Your task to perform on an android device: open app "NewsBreak: Local News & Alerts" (install if not already installed) Image 0: 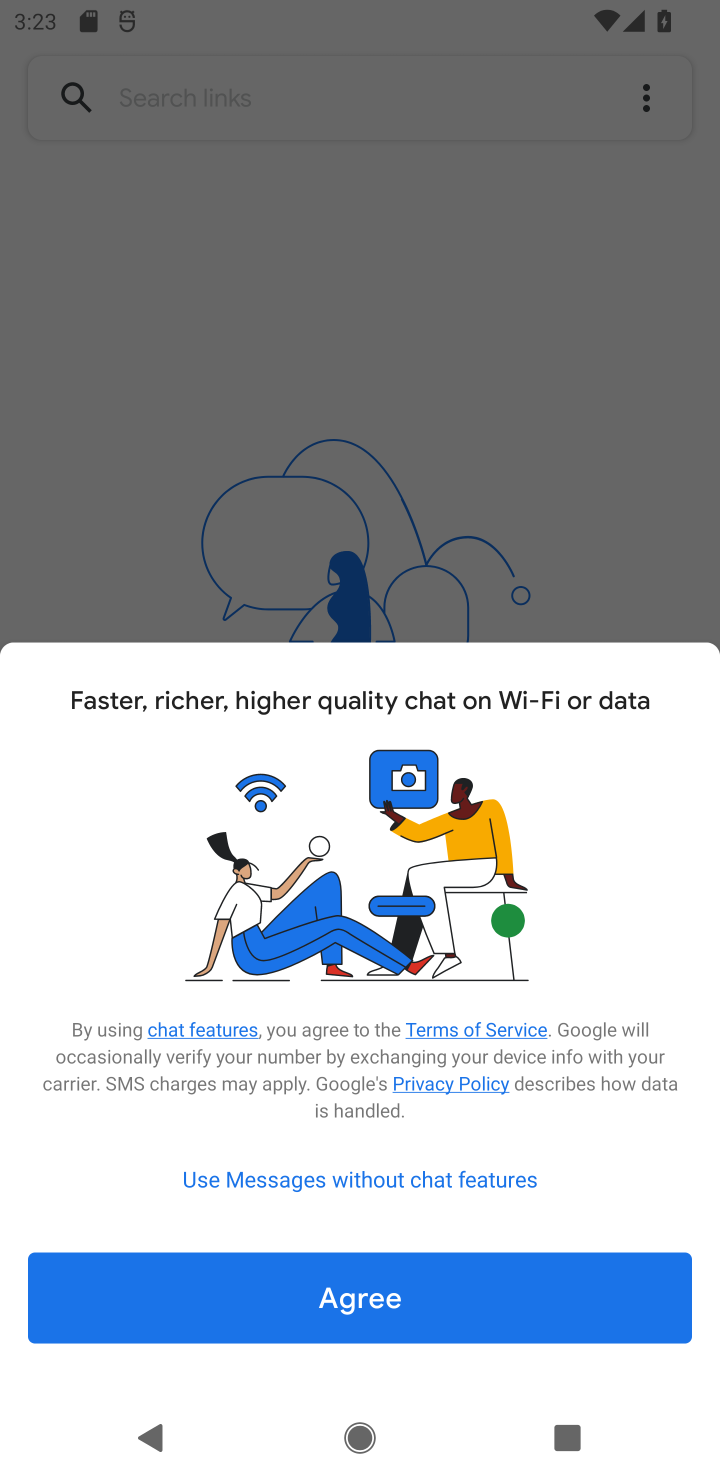
Step 0: press home button
Your task to perform on an android device: open app "NewsBreak: Local News & Alerts" (install if not already installed) Image 1: 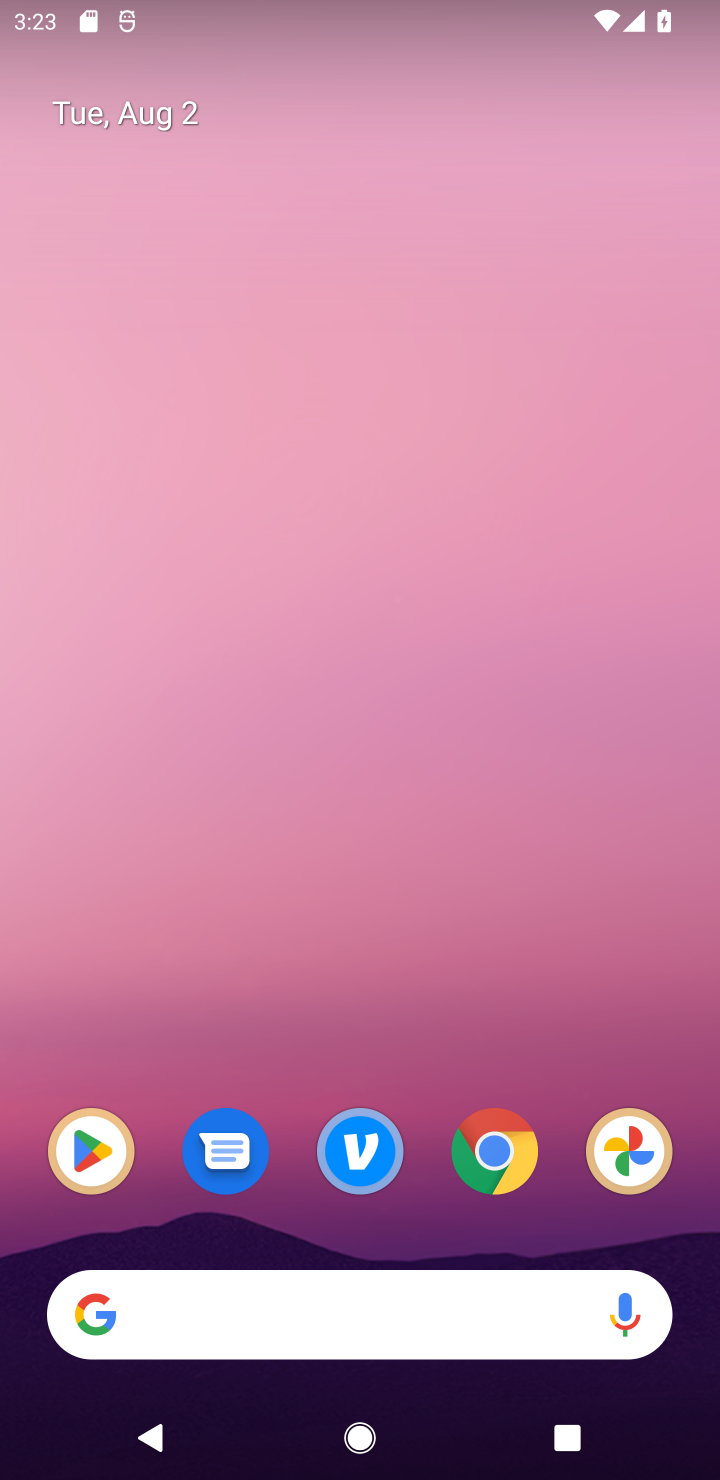
Step 1: drag from (300, 1030) to (339, 280)
Your task to perform on an android device: open app "NewsBreak: Local News & Alerts" (install if not already installed) Image 2: 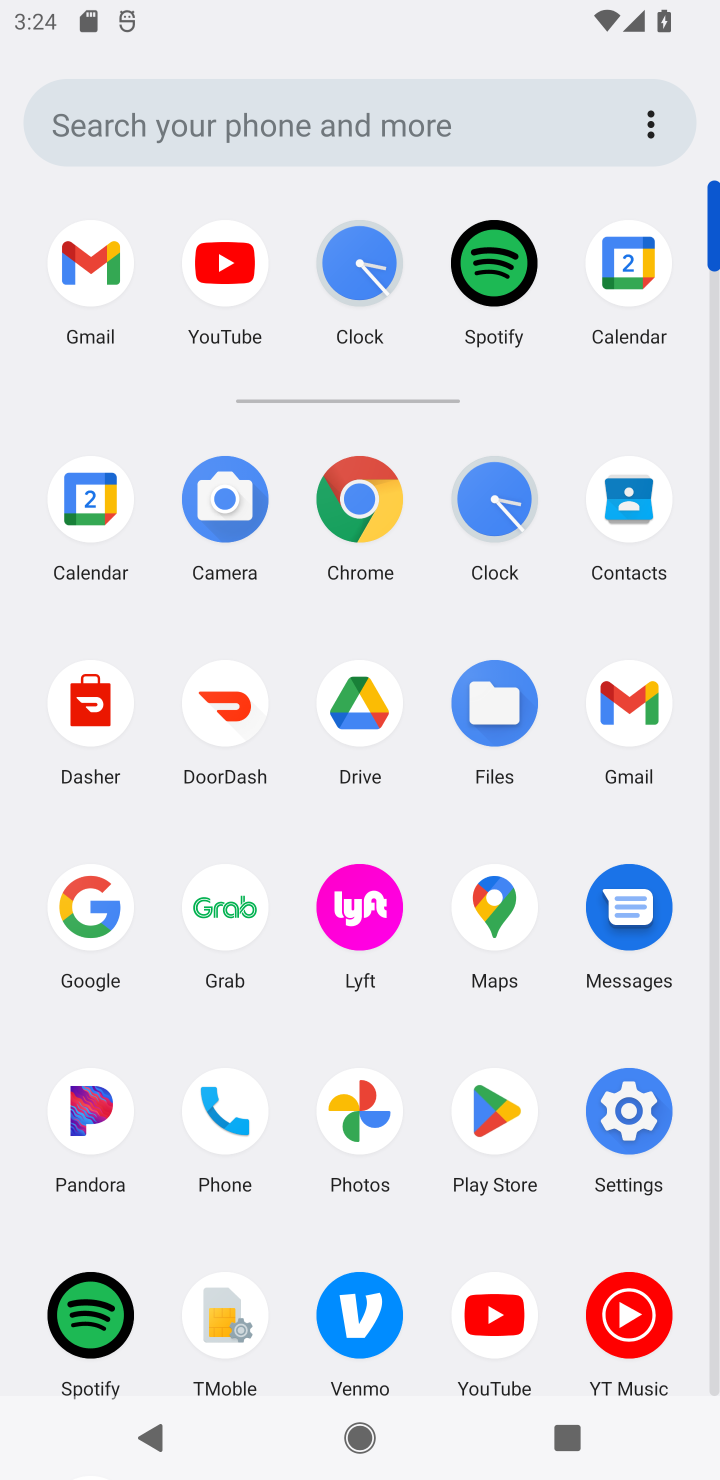
Step 2: click (453, 1135)
Your task to perform on an android device: open app "NewsBreak: Local News & Alerts" (install if not already installed) Image 3: 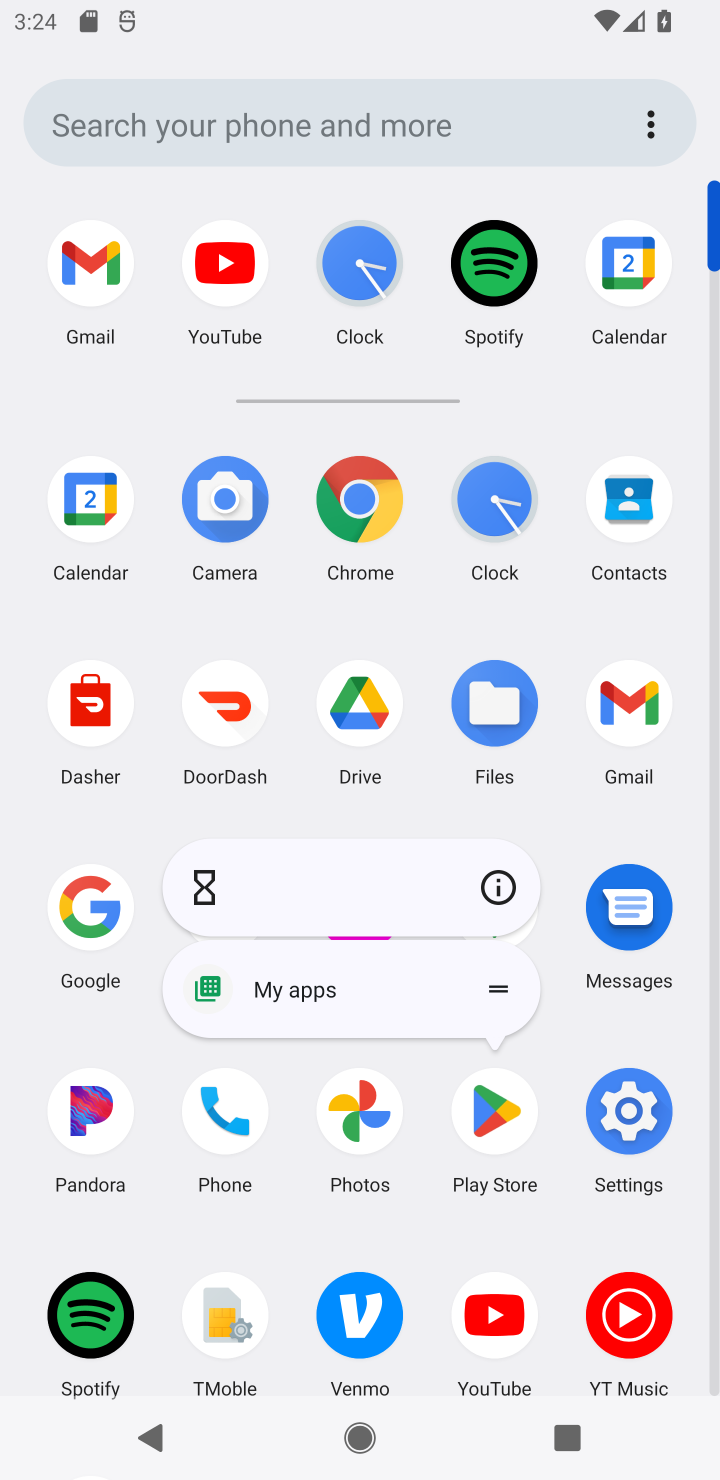
Step 3: click (508, 1134)
Your task to perform on an android device: open app "NewsBreak: Local News & Alerts" (install if not already installed) Image 4: 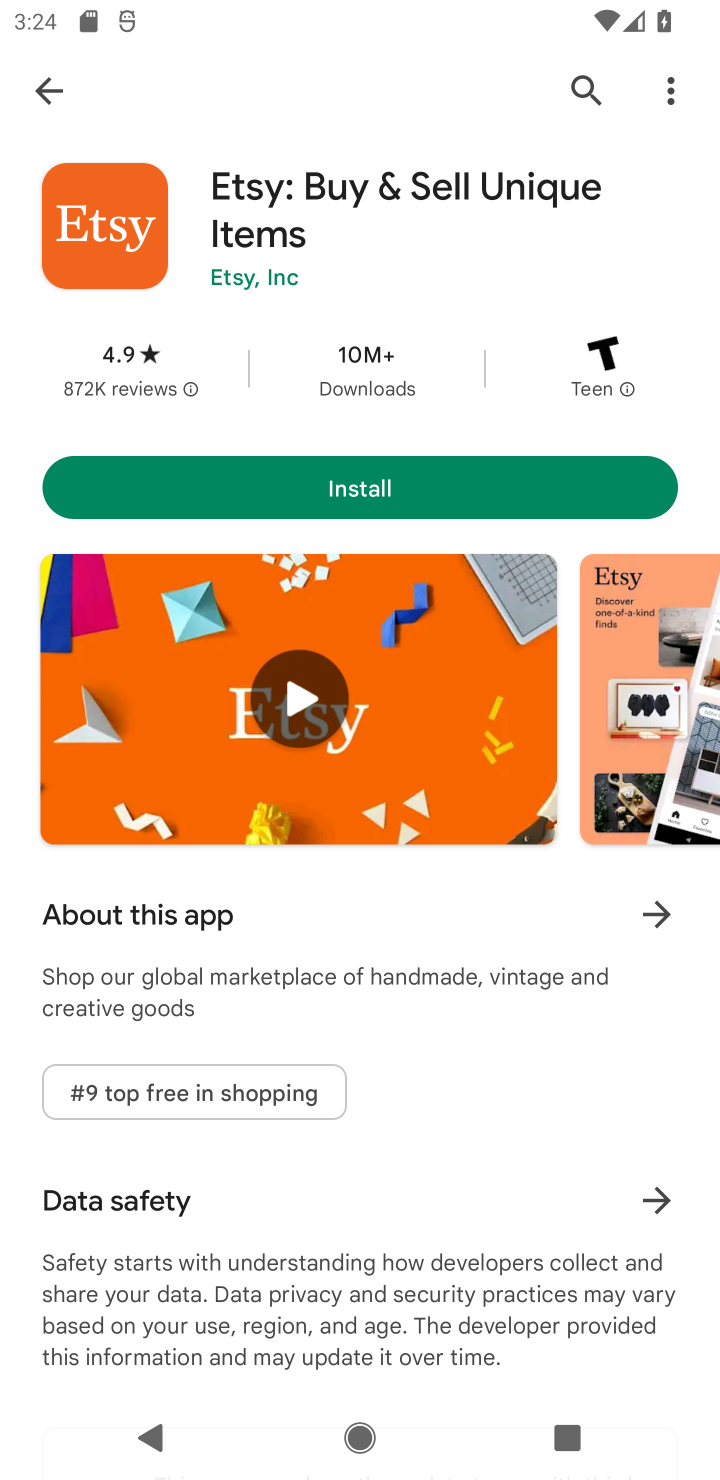
Step 4: click (51, 80)
Your task to perform on an android device: open app "NewsBreak: Local News & Alerts" (install if not already installed) Image 5: 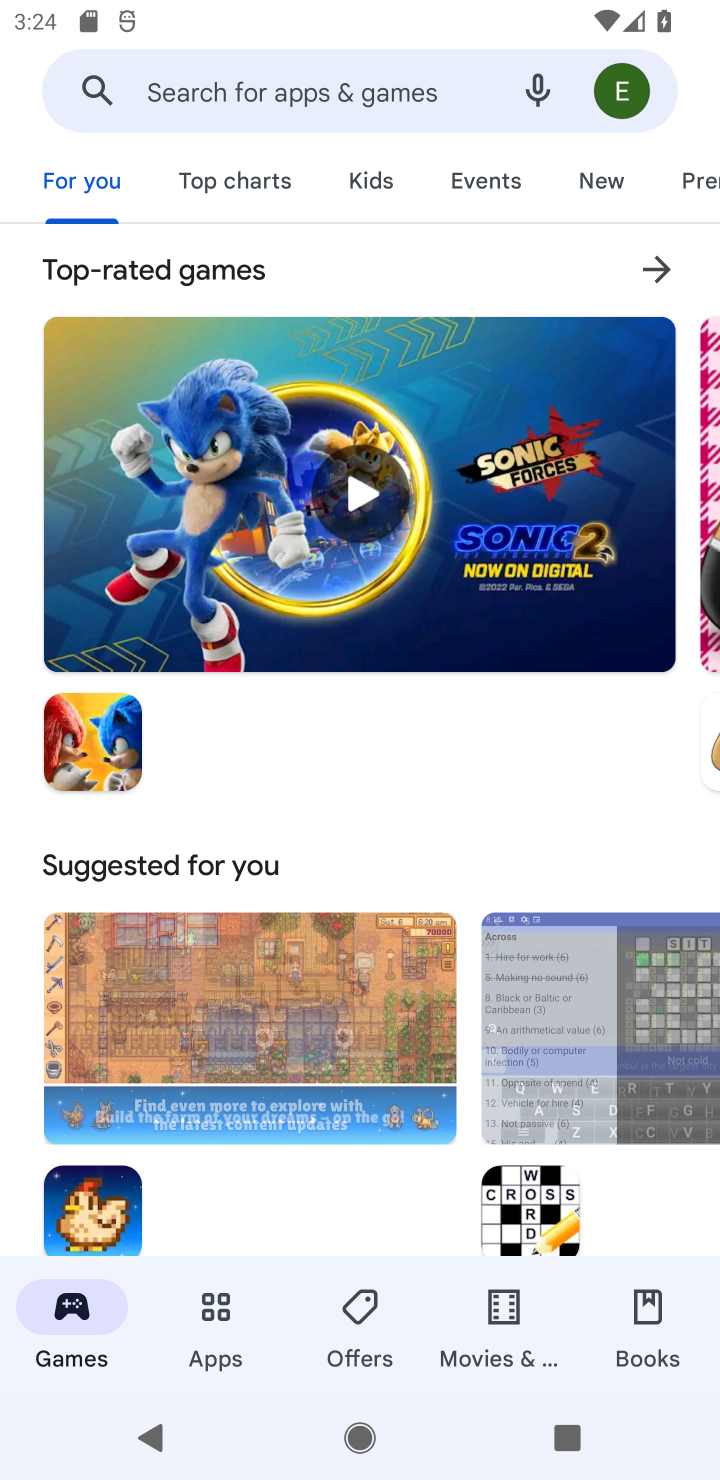
Step 5: click (367, 93)
Your task to perform on an android device: open app "NewsBreak: Local News & Alerts" (install if not already installed) Image 6: 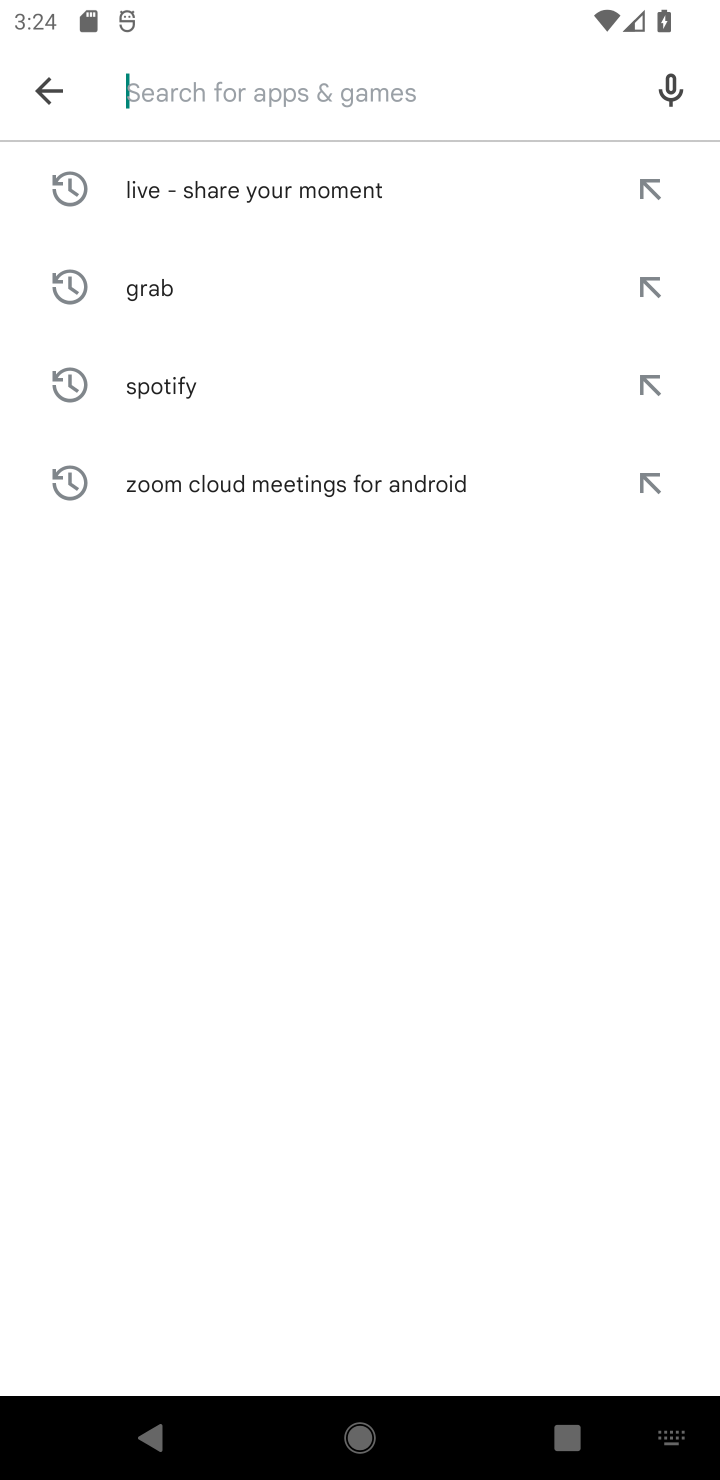
Step 6: type "NewsBreak: Local News & Alerts"
Your task to perform on an android device: open app "NewsBreak: Local News & Alerts" (install if not already installed) Image 7: 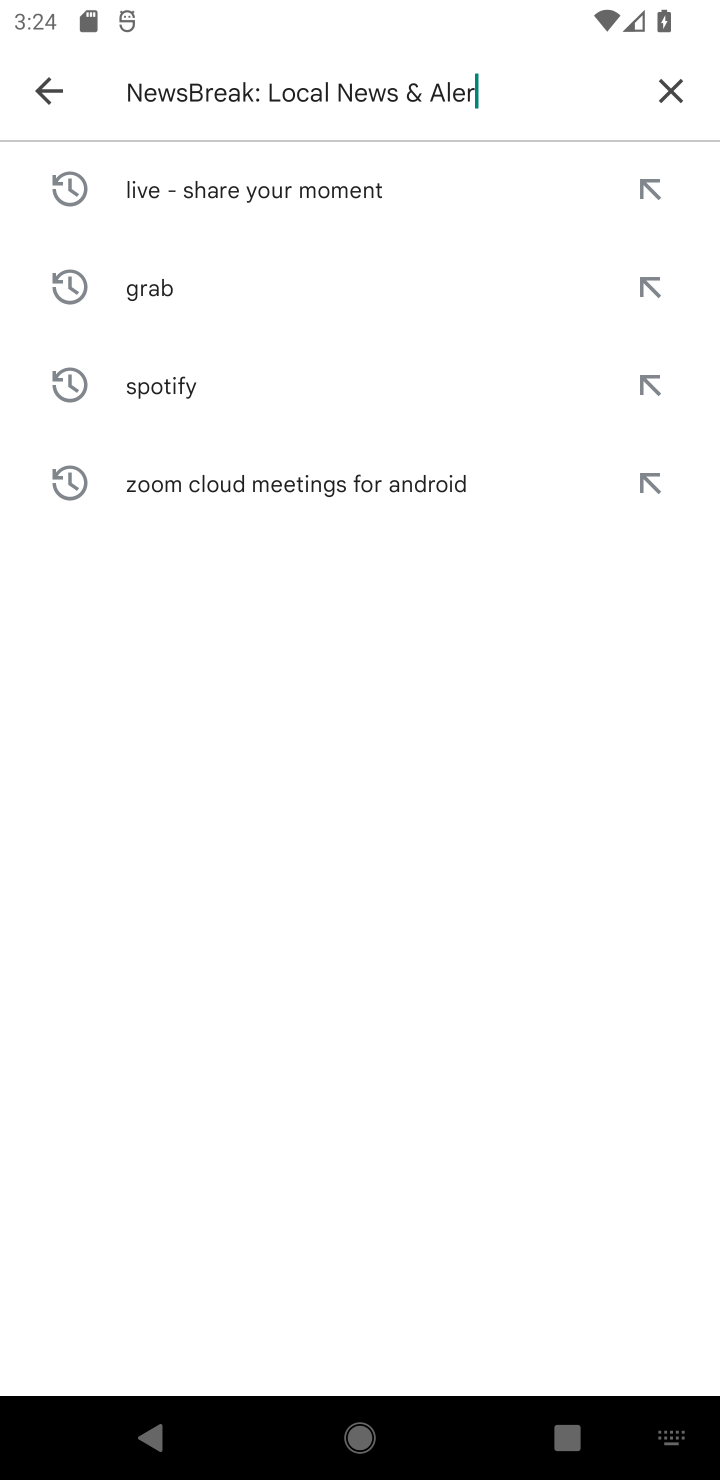
Step 7: type ""
Your task to perform on an android device: open app "NewsBreak: Local News & Alerts" (install if not already installed) Image 8: 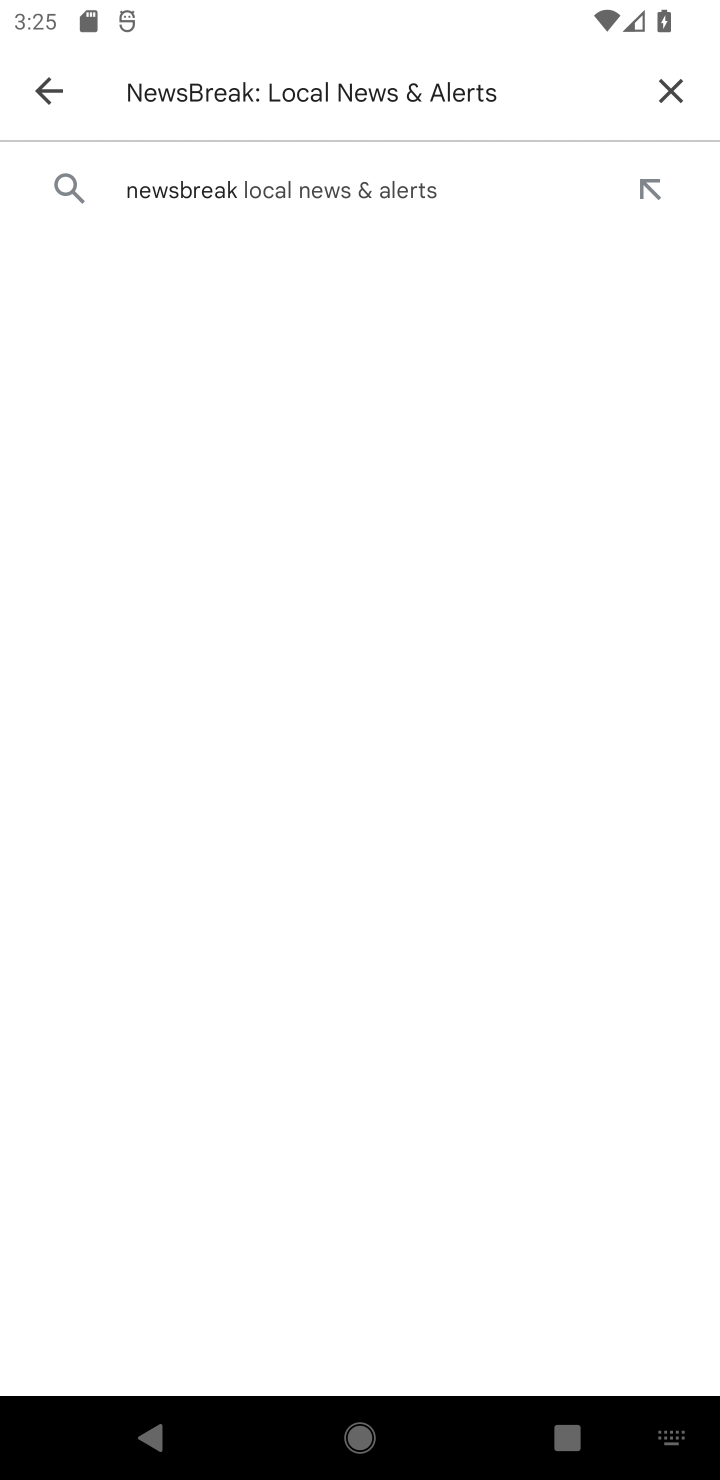
Step 8: click (431, 202)
Your task to perform on an android device: open app "NewsBreak: Local News & Alerts" (install if not already installed) Image 9: 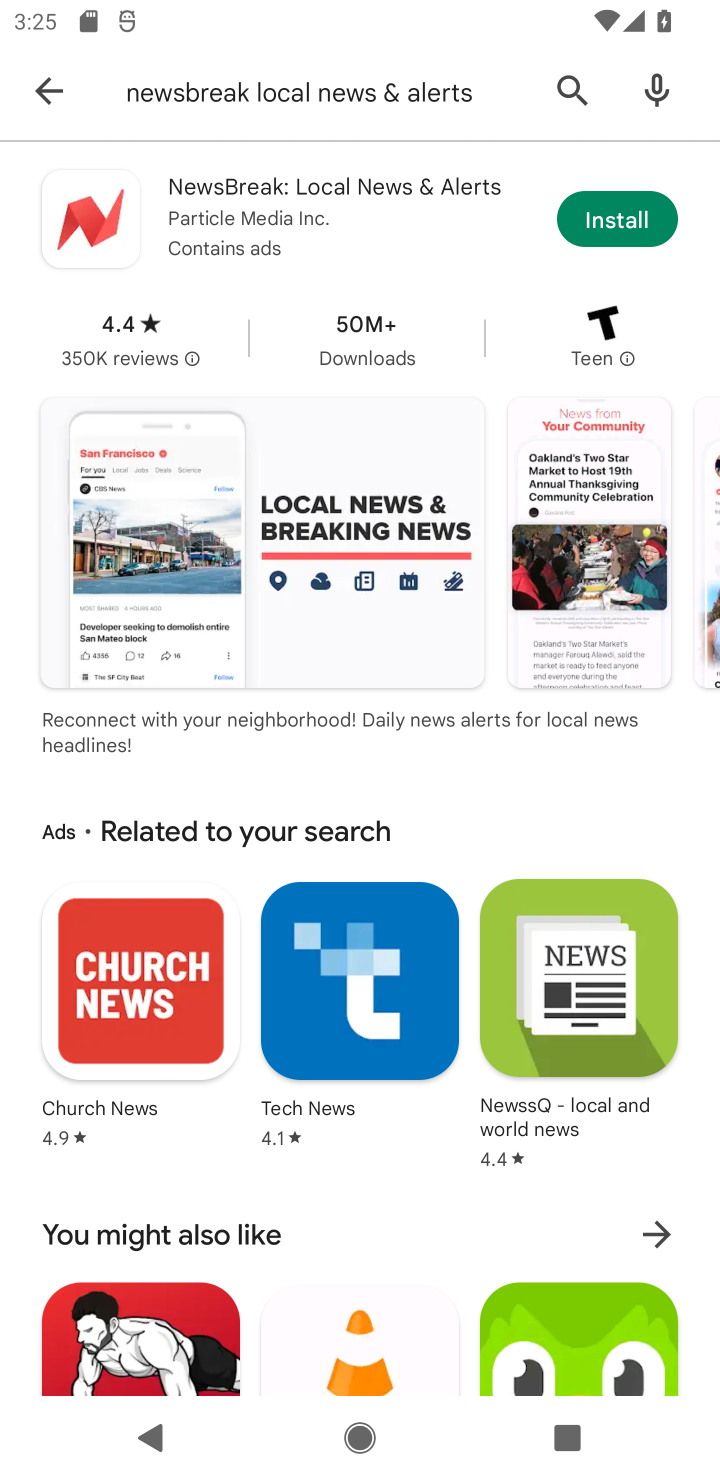
Step 9: click (572, 224)
Your task to perform on an android device: open app "NewsBreak: Local News & Alerts" (install if not already installed) Image 10: 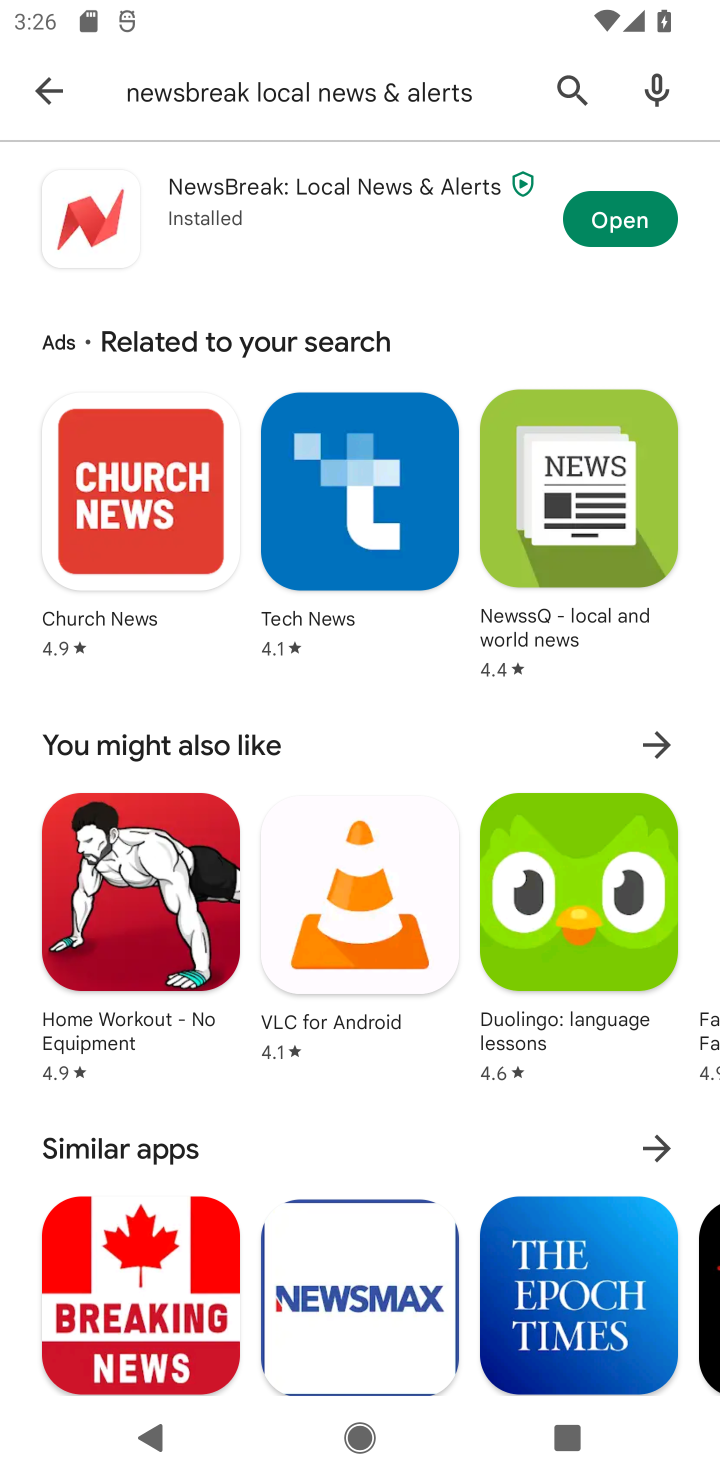
Step 10: click (592, 233)
Your task to perform on an android device: open app "NewsBreak: Local News & Alerts" (install if not already installed) Image 11: 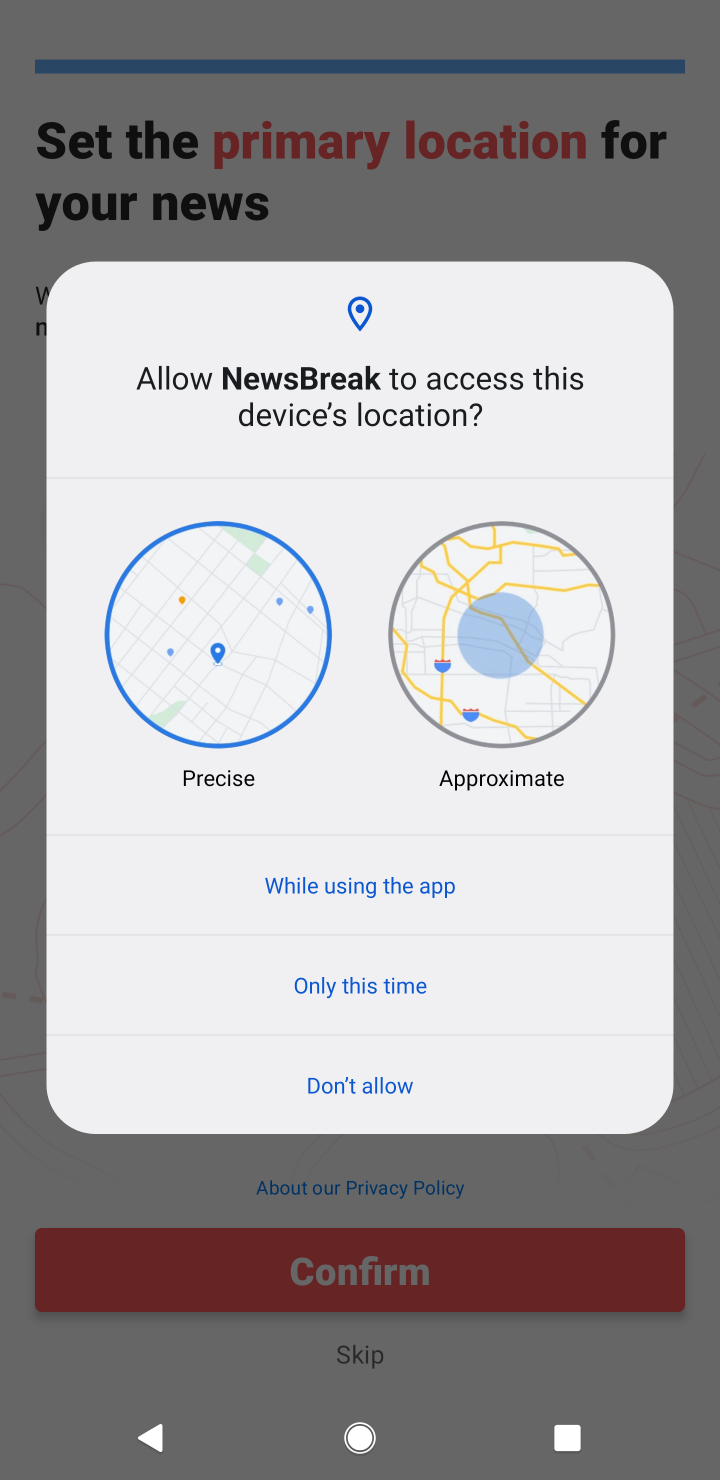
Step 11: click (420, 884)
Your task to perform on an android device: open app "NewsBreak: Local News & Alerts" (install if not already installed) Image 12: 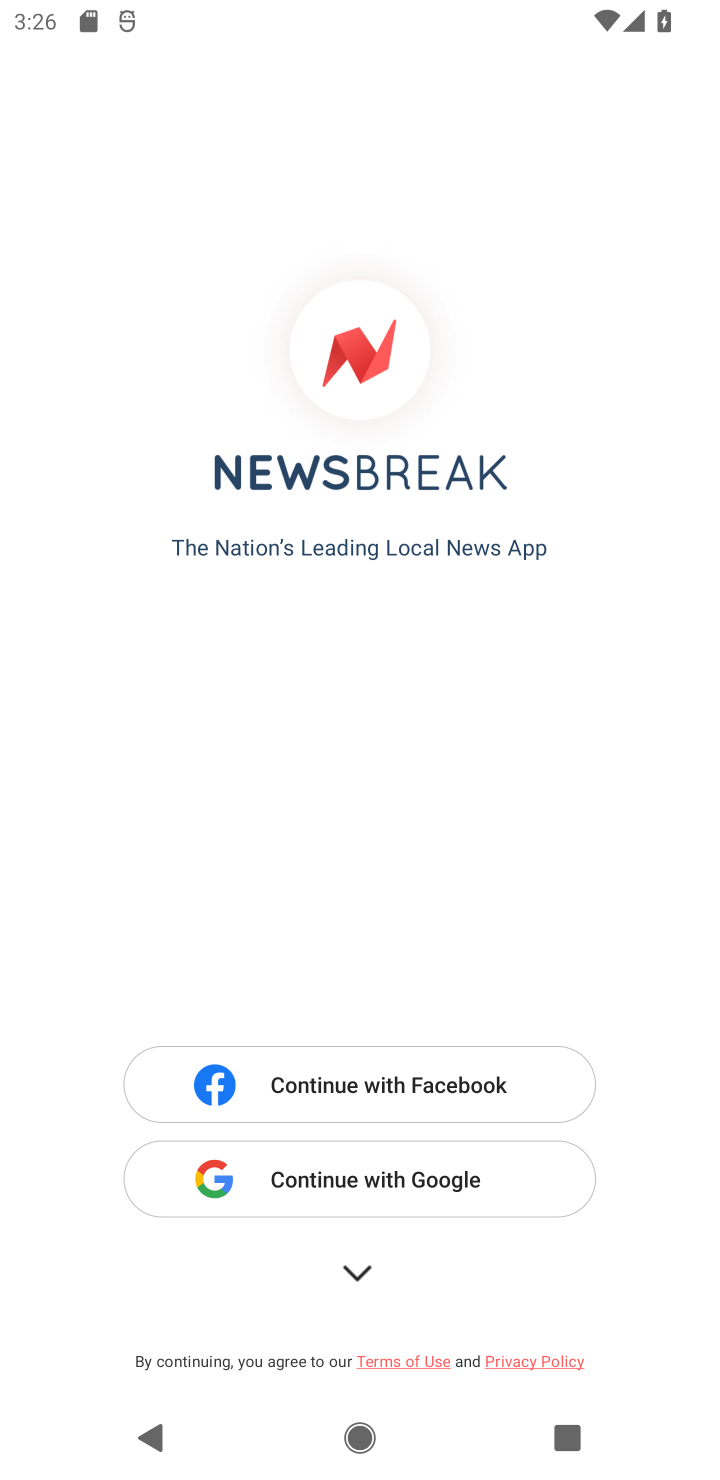
Step 12: task complete